Your task to perform on an android device: Open Google Image 0: 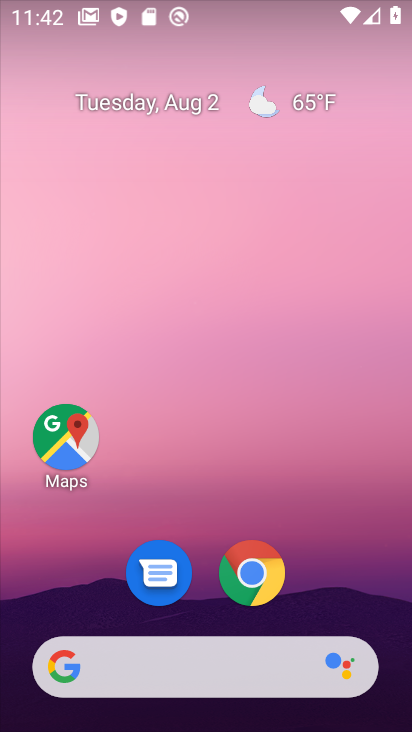
Step 0: drag from (205, 562) to (215, 255)
Your task to perform on an android device: Open Google Image 1: 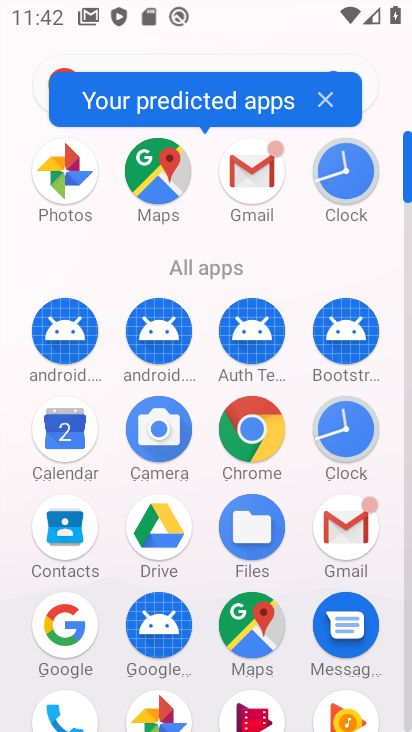
Step 1: drag from (195, 606) to (219, 140)
Your task to perform on an android device: Open Google Image 2: 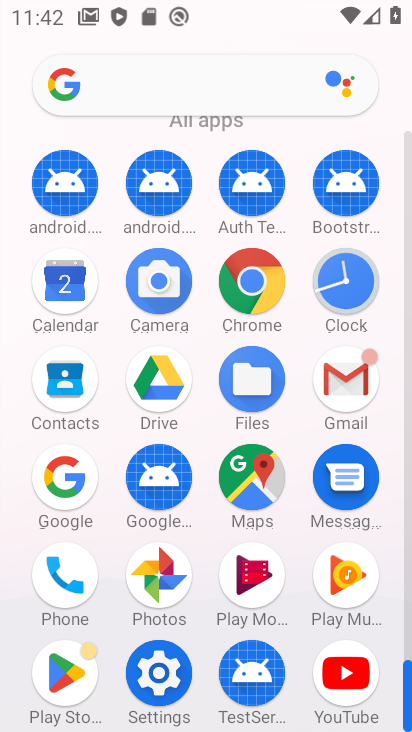
Step 2: click (68, 489)
Your task to perform on an android device: Open Google Image 3: 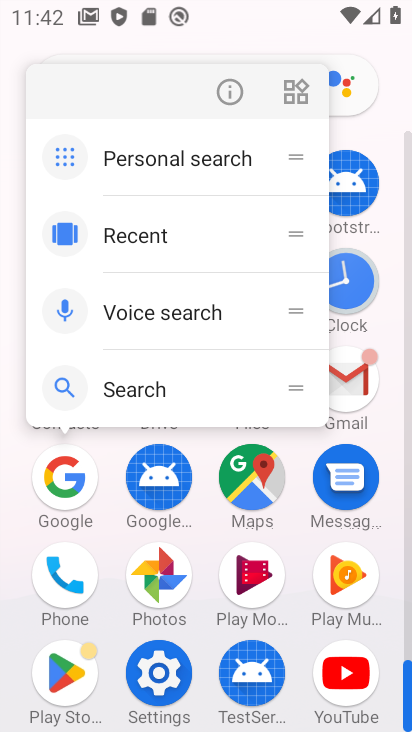
Step 3: click (217, 100)
Your task to perform on an android device: Open Google Image 4: 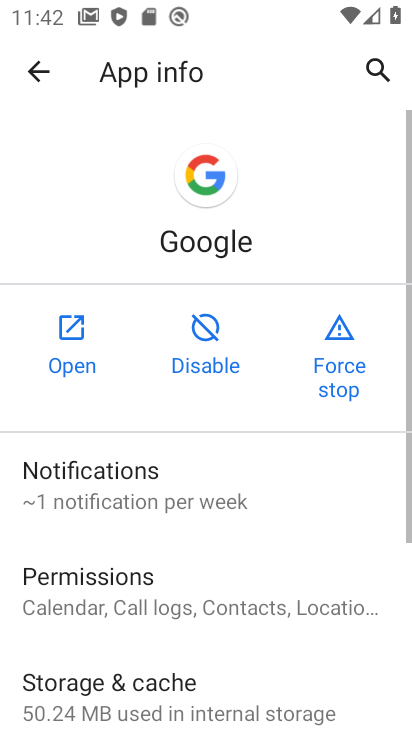
Step 4: click (54, 322)
Your task to perform on an android device: Open Google Image 5: 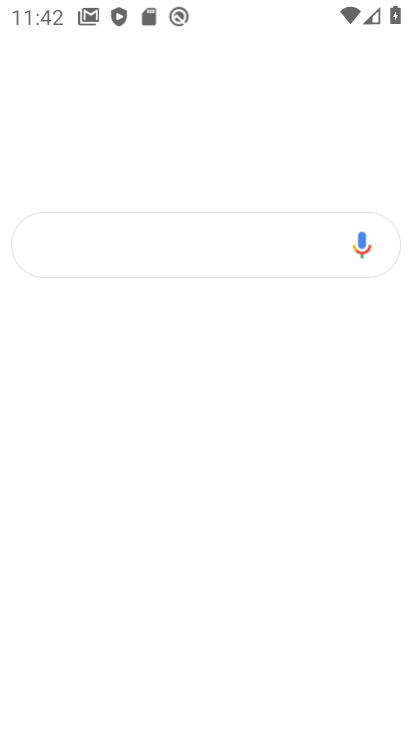
Step 5: task complete